Your task to perform on an android device: Open Youtube and go to the subscriptions tab Image 0: 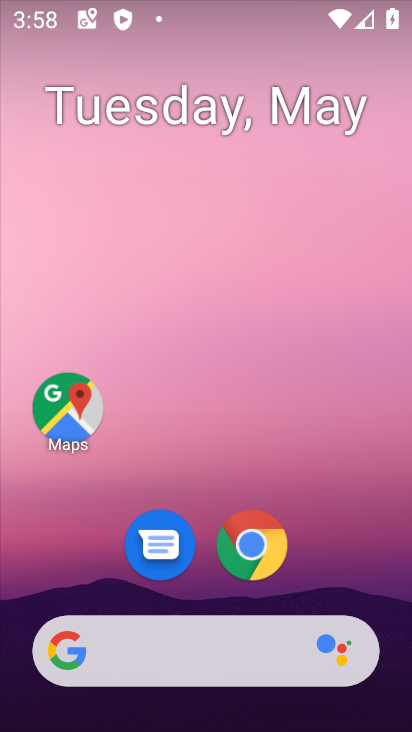
Step 0: drag from (337, 536) to (267, 188)
Your task to perform on an android device: Open Youtube and go to the subscriptions tab Image 1: 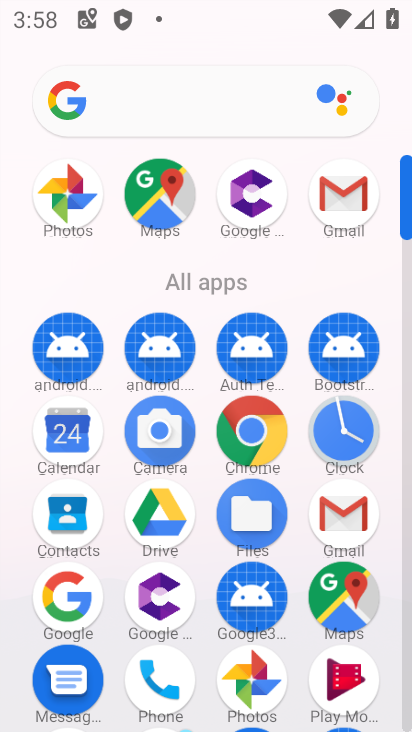
Step 1: drag from (286, 551) to (305, 295)
Your task to perform on an android device: Open Youtube and go to the subscriptions tab Image 2: 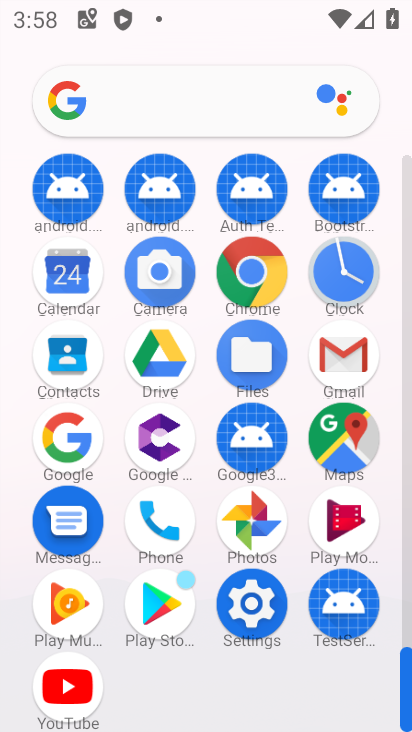
Step 2: click (66, 683)
Your task to perform on an android device: Open Youtube and go to the subscriptions tab Image 3: 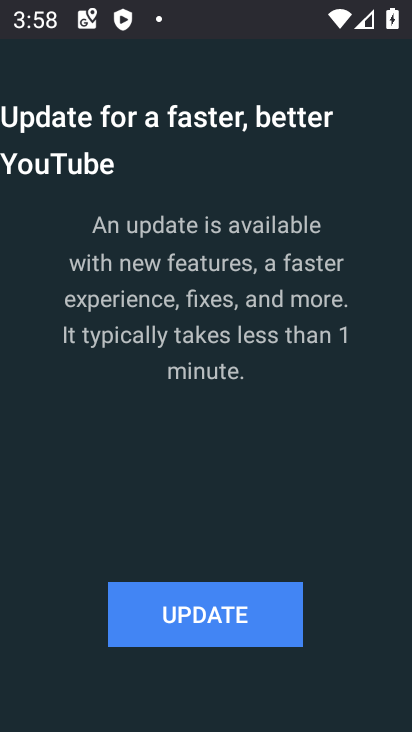
Step 3: click (194, 614)
Your task to perform on an android device: Open Youtube and go to the subscriptions tab Image 4: 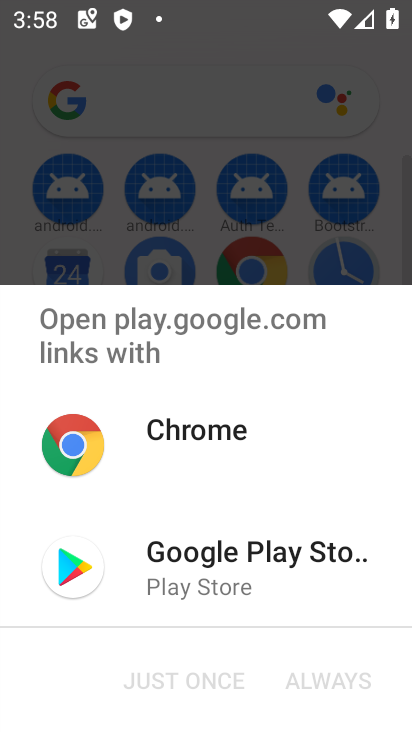
Step 4: click (218, 553)
Your task to perform on an android device: Open Youtube and go to the subscriptions tab Image 5: 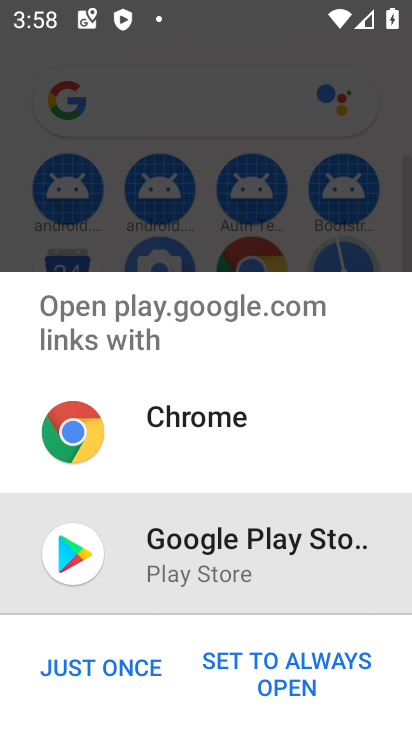
Step 5: click (113, 661)
Your task to perform on an android device: Open Youtube and go to the subscriptions tab Image 6: 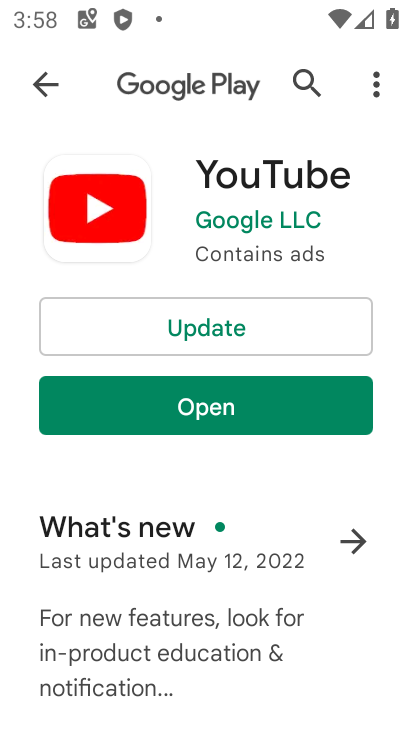
Step 6: click (244, 320)
Your task to perform on an android device: Open Youtube and go to the subscriptions tab Image 7: 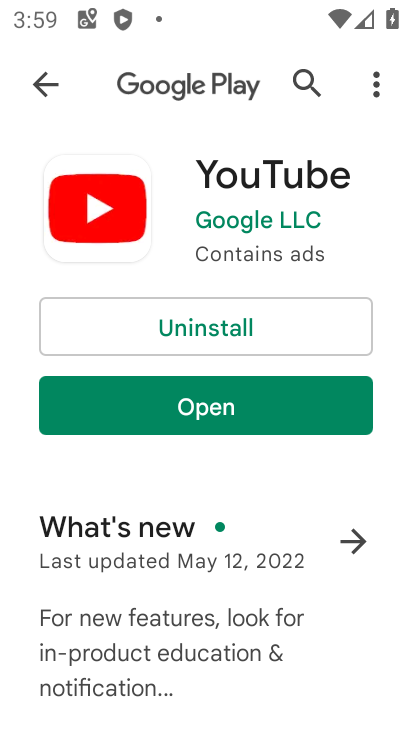
Step 7: click (227, 407)
Your task to perform on an android device: Open Youtube and go to the subscriptions tab Image 8: 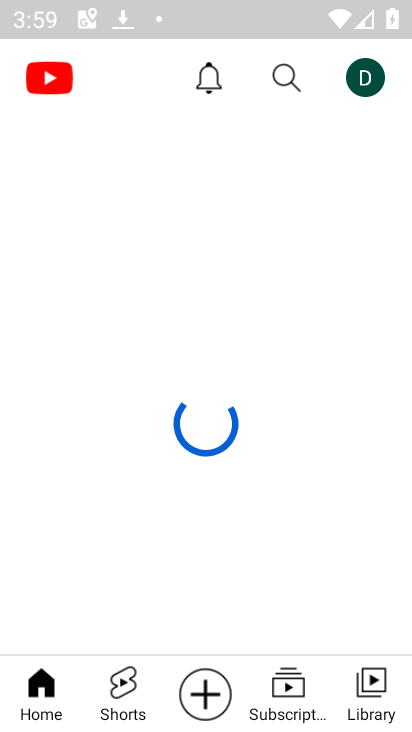
Step 8: click (290, 687)
Your task to perform on an android device: Open Youtube and go to the subscriptions tab Image 9: 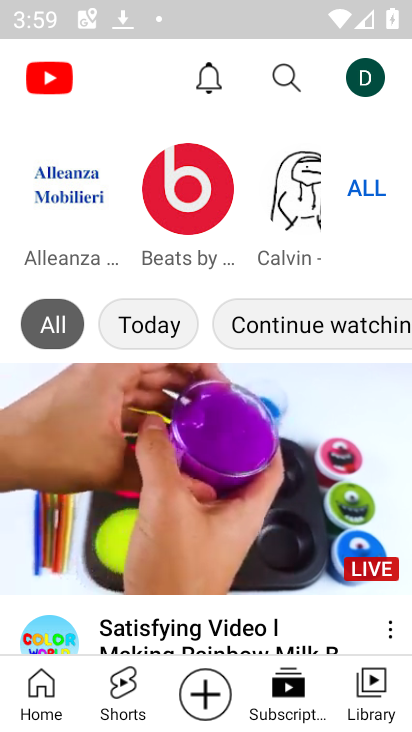
Step 9: task complete